Your task to perform on an android device: Open calendar and show me the fourth week of next month Image 0: 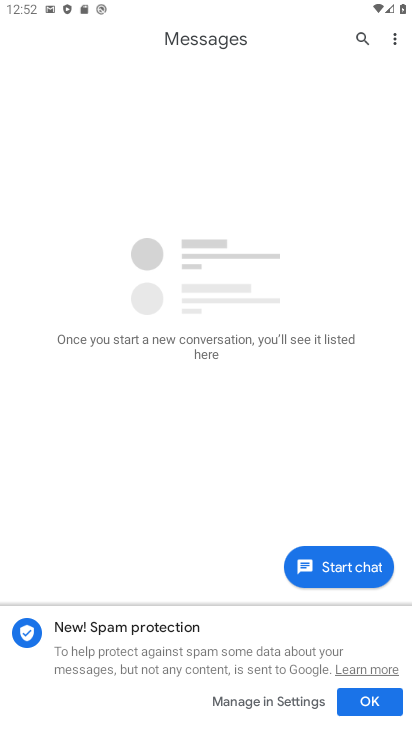
Step 0: press home button
Your task to perform on an android device: Open calendar and show me the fourth week of next month Image 1: 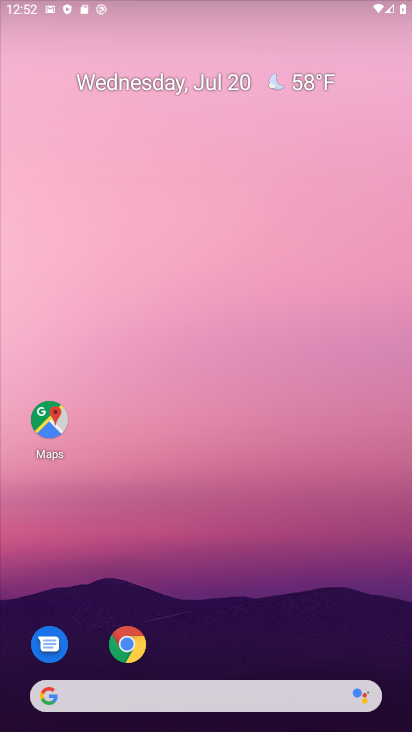
Step 1: drag from (205, 659) to (201, 130)
Your task to perform on an android device: Open calendar and show me the fourth week of next month Image 2: 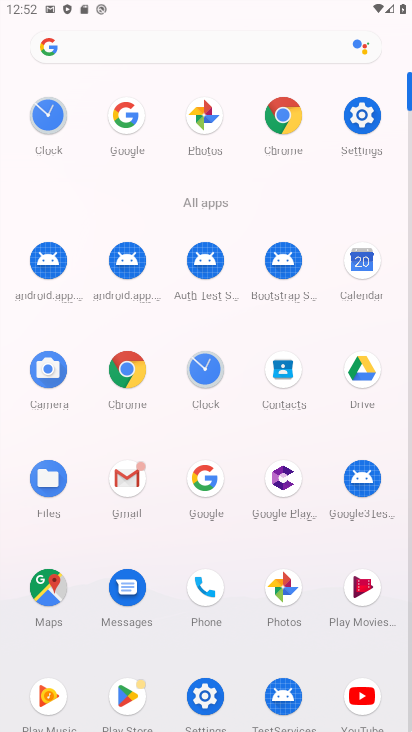
Step 2: click (364, 263)
Your task to perform on an android device: Open calendar and show me the fourth week of next month Image 3: 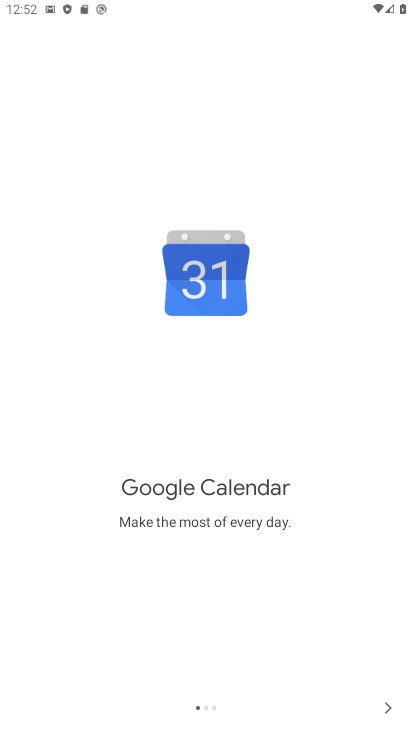
Step 3: click (396, 715)
Your task to perform on an android device: Open calendar and show me the fourth week of next month Image 4: 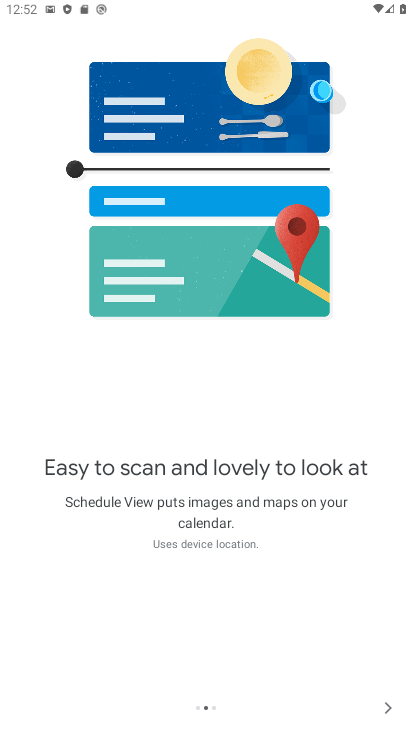
Step 4: click (396, 715)
Your task to perform on an android device: Open calendar and show me the fourth week of next month Image 5: 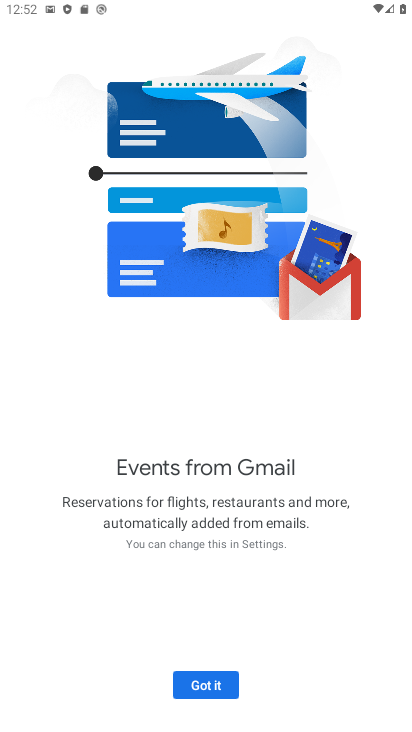
Step 5: click (201, 684)
Your task to perform on an android device: Open calendar and show me the fourth week of next month Image 6: 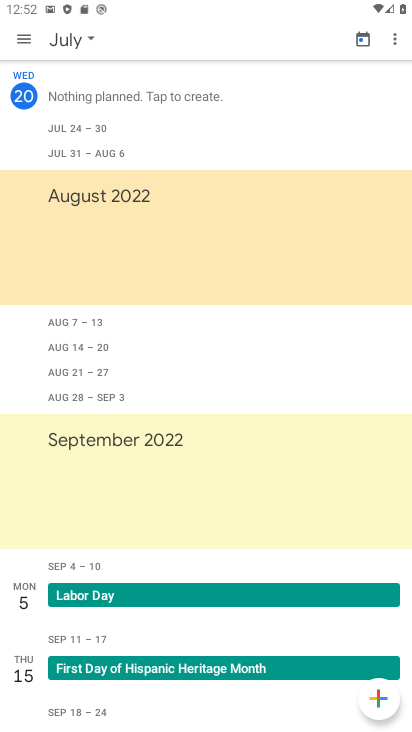
Step 6: click (74, 41)
Your task to perform on an android device: Open calendar and show me the fourth week of next month Image 7: 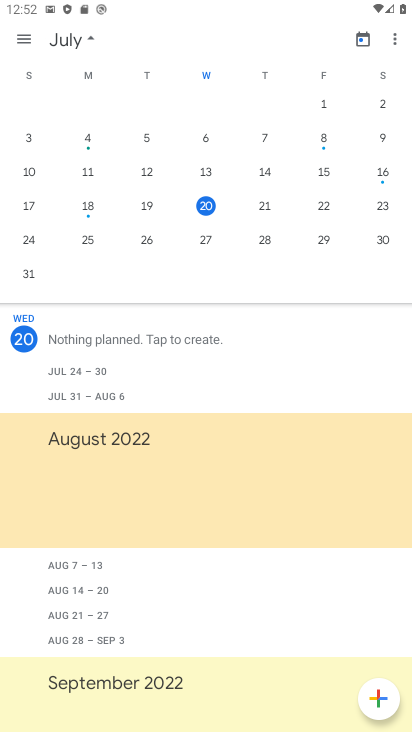
Step 7: drag from (35, 260) to (0, 259)
Your task to perform on an android device: Open calendar and show me the fourth week of next month Image 8: 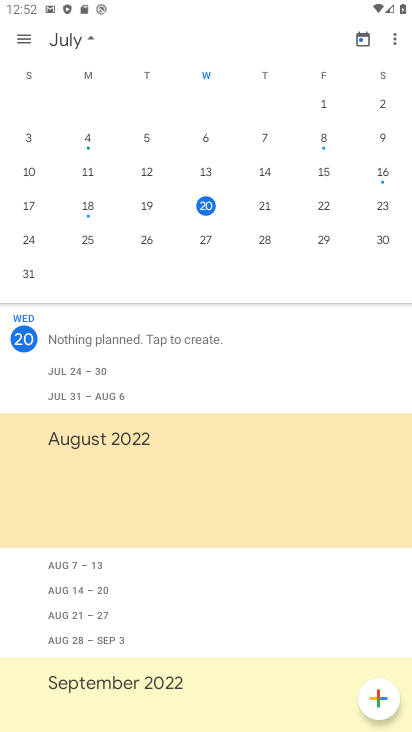
Step 8: drag from (390, 279) to (28, 262)
Your task to perform on an android device: Open calendar and show me the fourth week of next month Image 9: 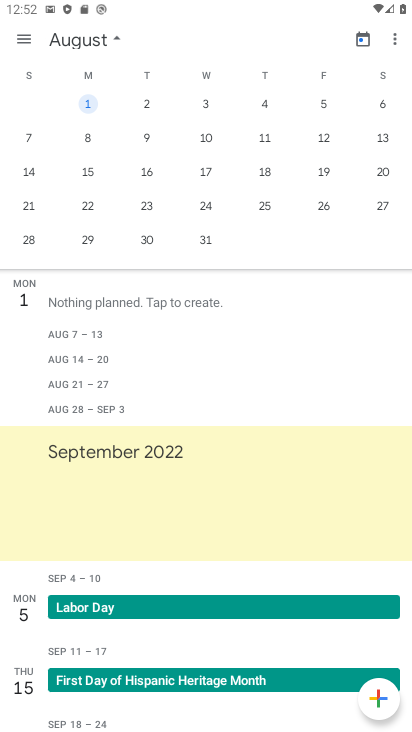
Step 9: click (201, 202)
Your task to perform on an android device: Open calendar and show me the fourth week of next month Image 10: 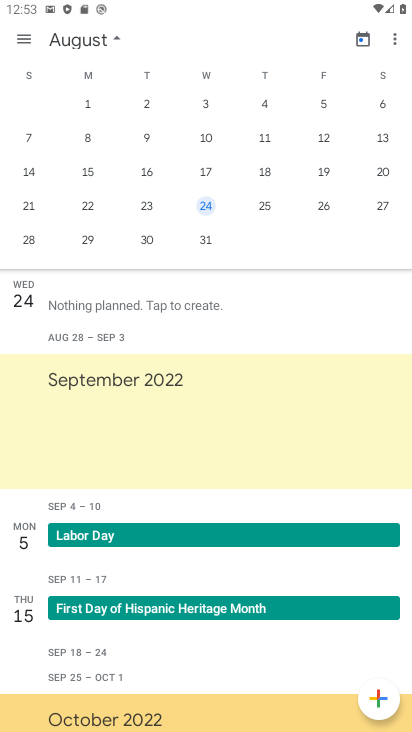
Step 10: task complete